Your task to perform on an android device: turn off notifications settings in the gmail app Image 0: 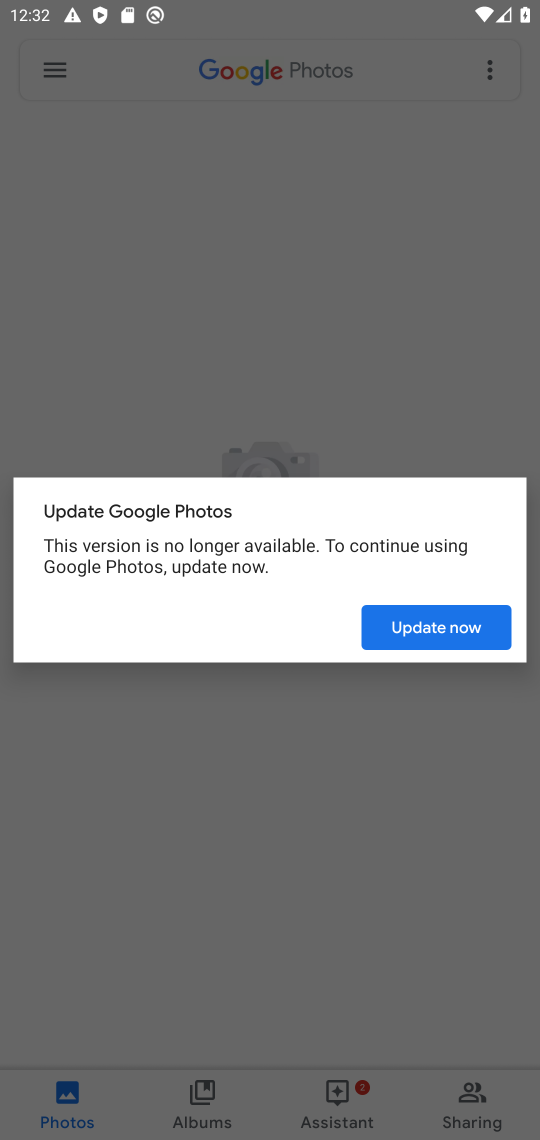
Step 0: press home button
Your task to perform on an android device: turn off notifications settings in the gmail app Image 1: 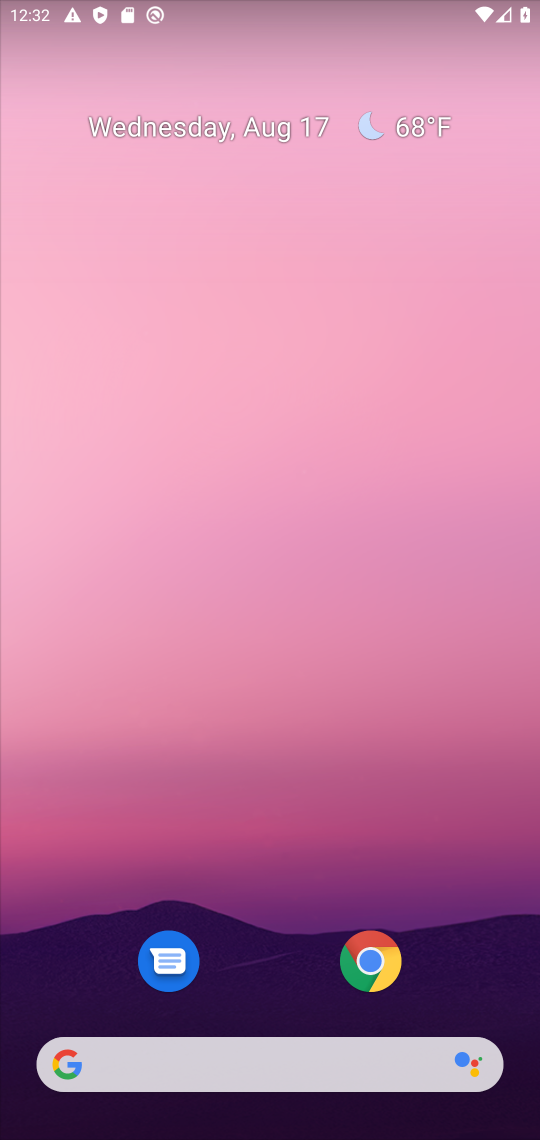
Step 1: drag from (377, 911) to (358, 59)
Your task to perform on an android device: turn off notifications settings in the gmail app Image 2: 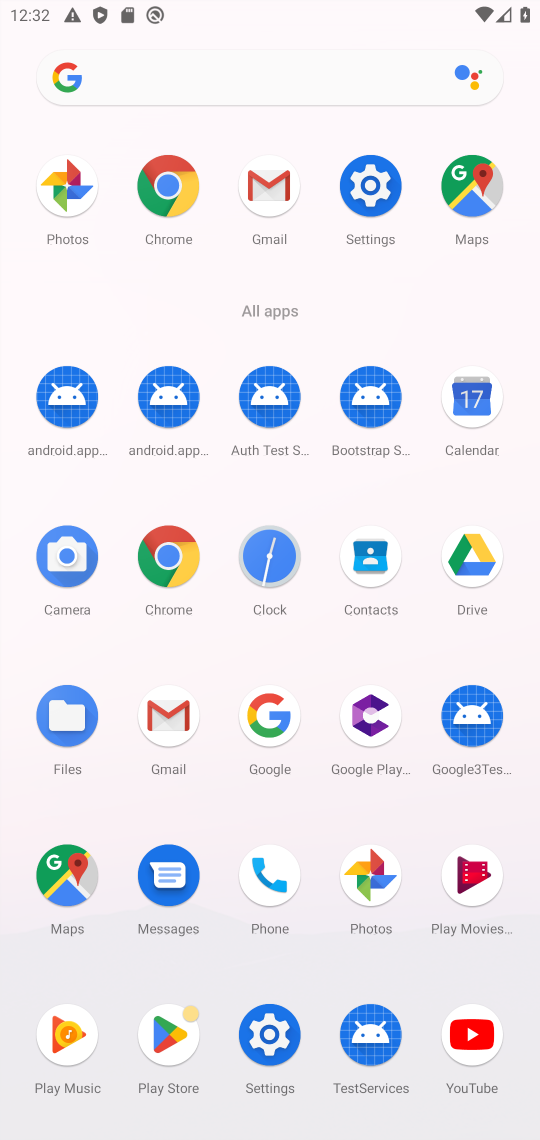
Step 2: click (144, 752)
Your task to perform on an android device: turn off notifications settings in the gmail app Image 3: 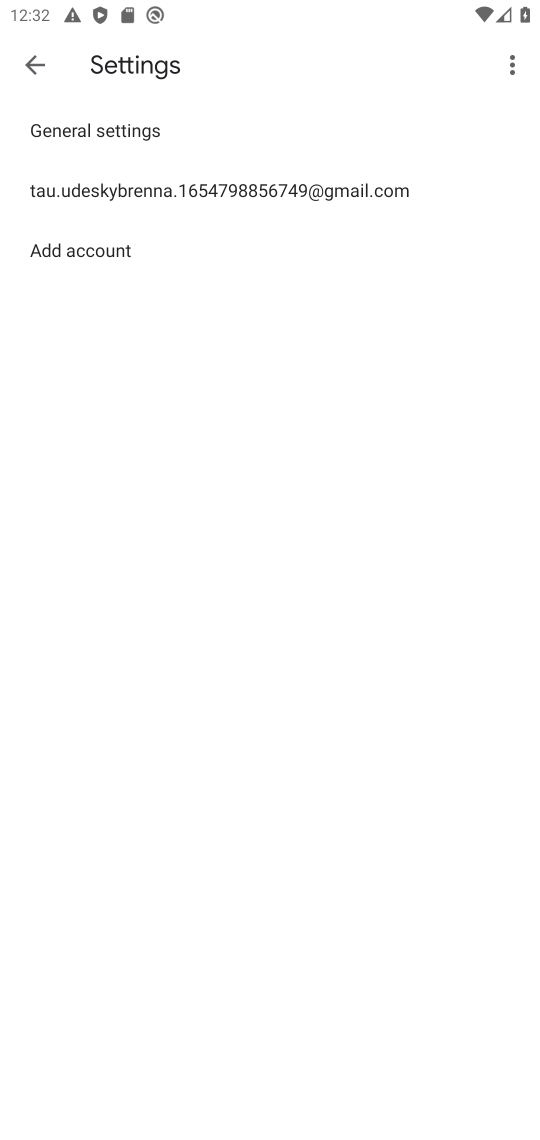
Step 3: click (110, 136)
Your task to perform on an android device: turn off notifications settings in the gmail app Image 4: 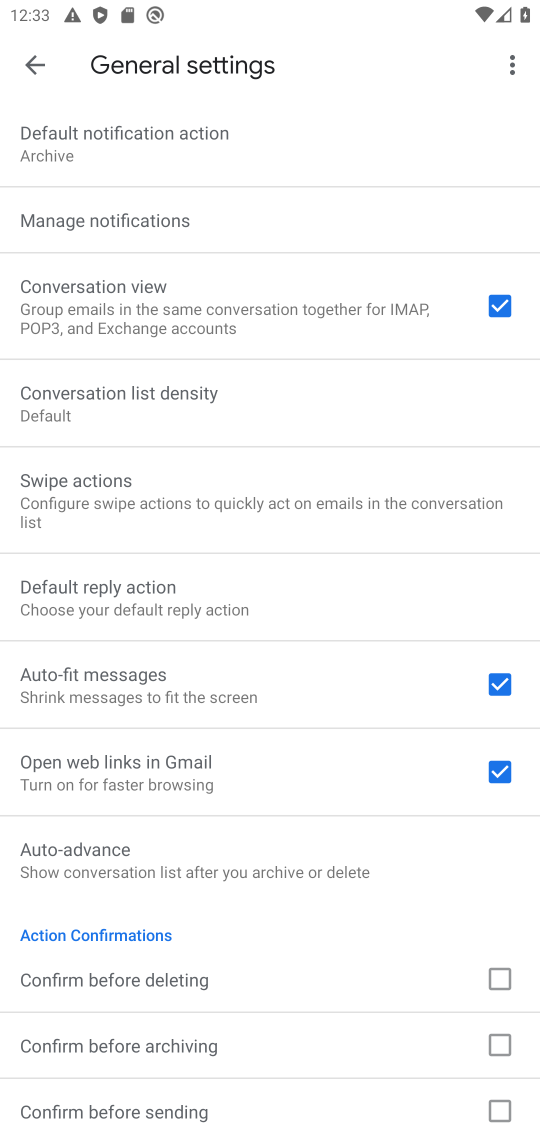
Step 4: click (89, 236)
Your task to perform on an android device: turn off notifications settings in the gmail app Image 5: 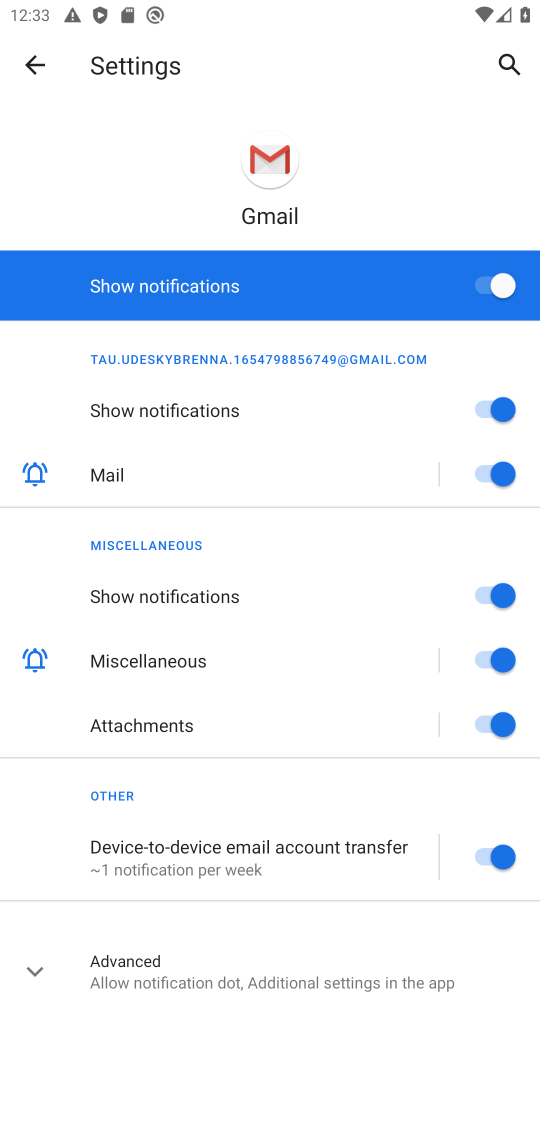
Step 5: click (491, 286)
Your task to perform on an android device: turn off notifications settings in the gmail app Image 6: 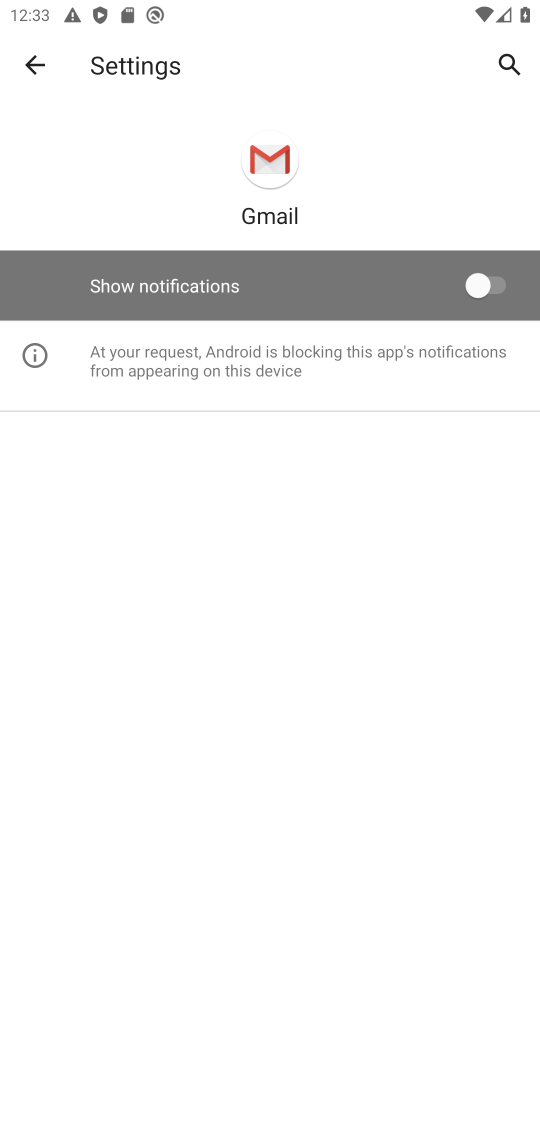
Step 6: task complete